Your task to perform on an android device: turn smart compose on in the gmail app Image 0: 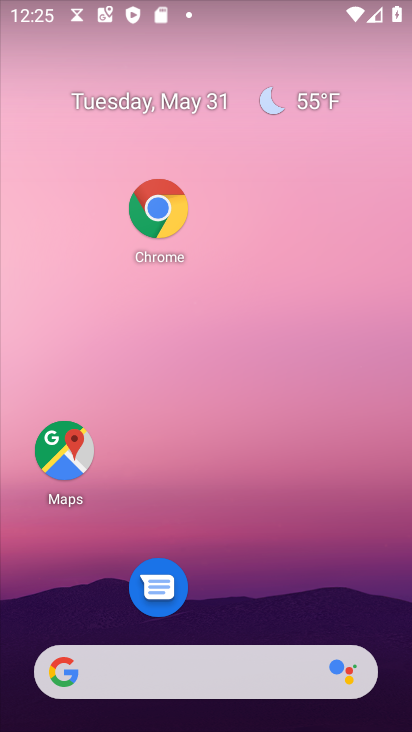
Step 0: drag from (311, 595) to (264, 186)
Your task to perform on an android device: turn smart compose on in the gmail app Image 1: 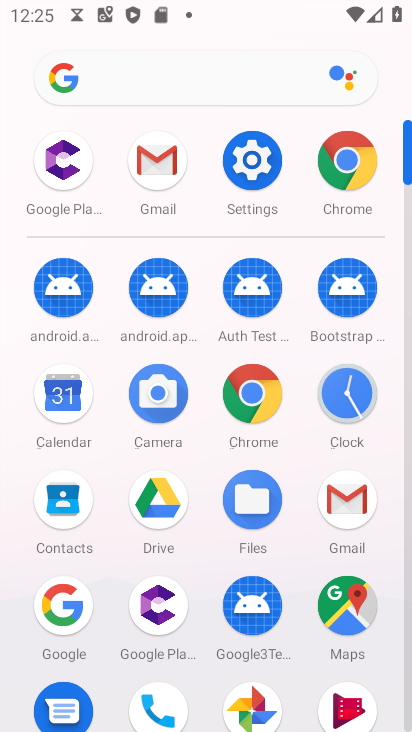
Step 1: click (349, 507)
Your task to perform on an android device: turn smart compose on in the gmail app Image 2: 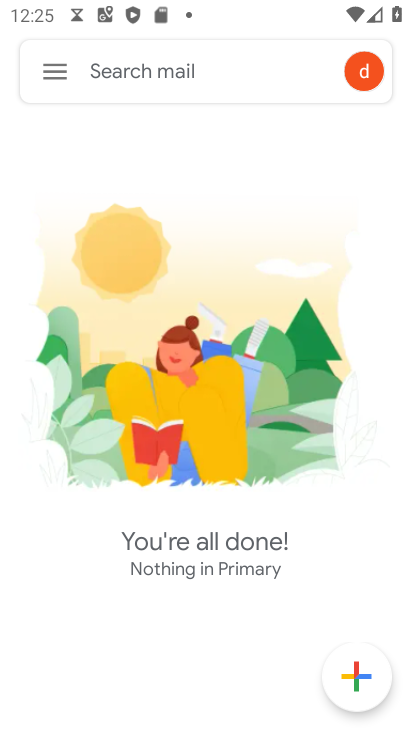
Step 2: click (55, 76)
Your task to perform on an android device: turn smart compose on in the gmail app Image 3: 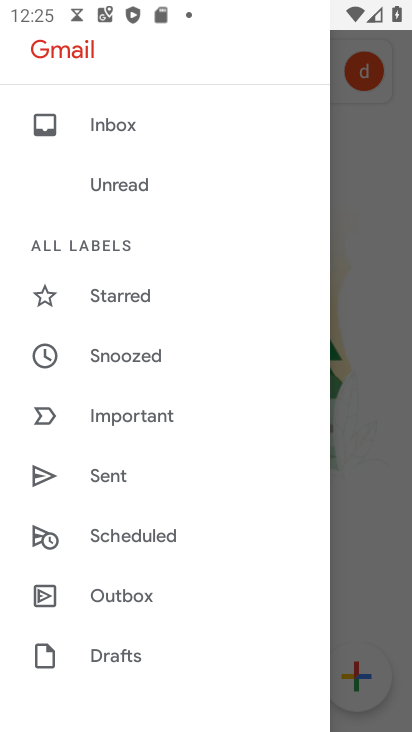
Step 3: drag from (173, 697) to (151, 207)
Your task to perform on an android device: turn smart compose on in the gmail app Image 4: 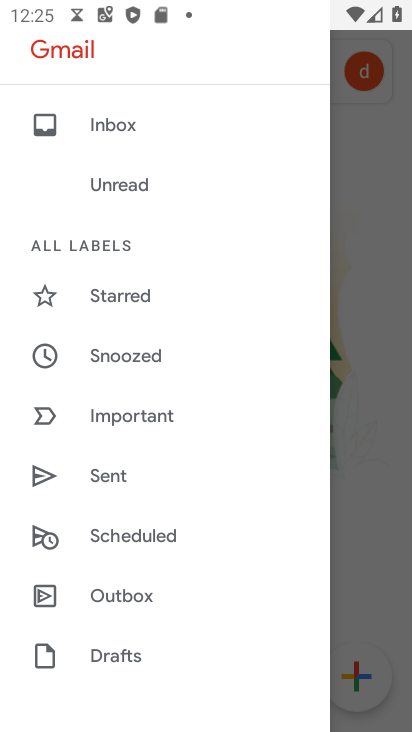
Step 4: drag from (199, 597) to (149, 24)
Your task to perform on an android device: turn smart compose on in the gmail app Image 5: 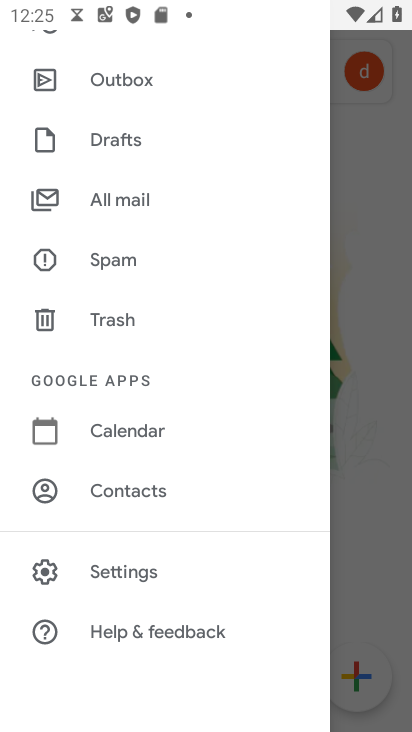
Step 5: click (120, 580)
Your task to perform on an android device: turn smart compose on in the gmail app Image 6: 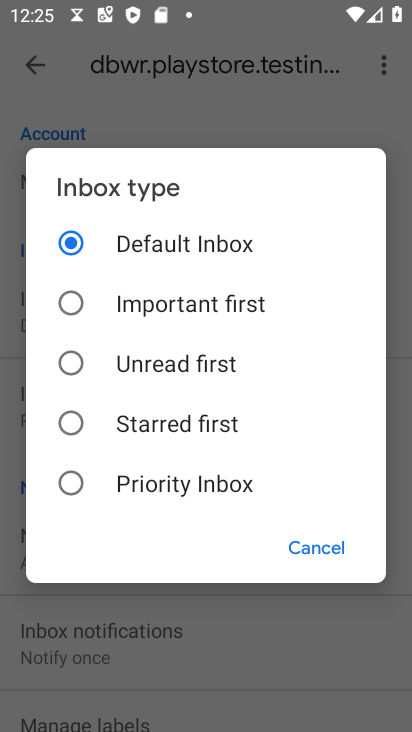
Step 6: task complete